Your task to perform on an android device: Open Google Image 0: 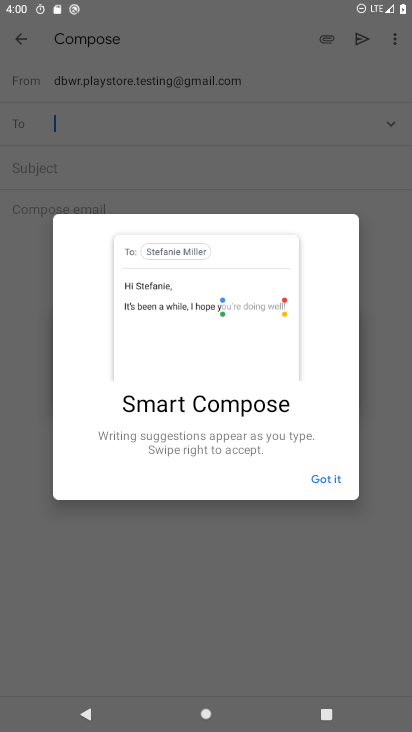
Step 0: press home button
Your task to perform on an android device: Open Google Image 1: 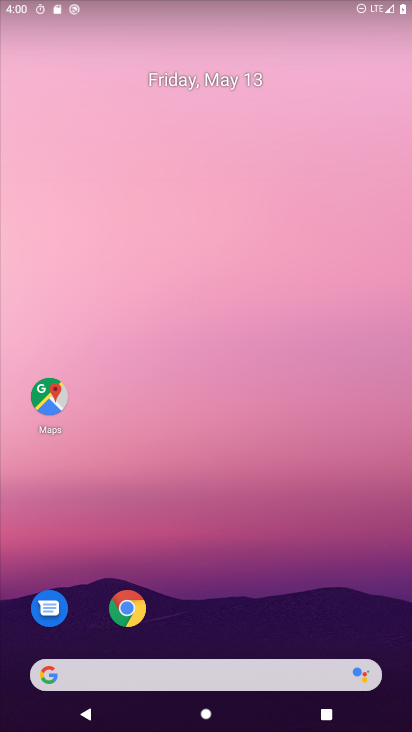
Step 1: drag from (316, 569) to (319, 254)
Your task to perform on an android device: Open Google Image 2: 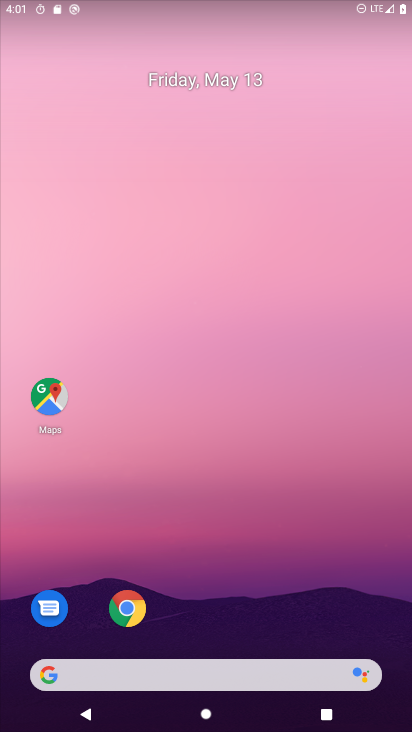
Step 2: drag from (265, 567) to (255, 91)
Your task to perform on an android device: Open Google Image 3: 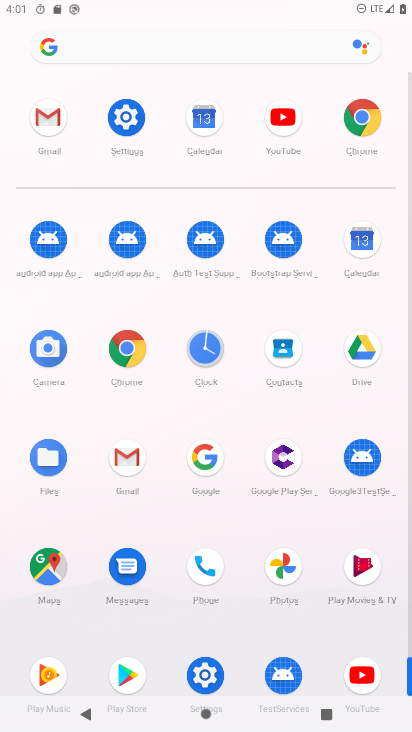
Step 3: click (208, 443)
Your task to perform on an android device: Open Google Image 4: 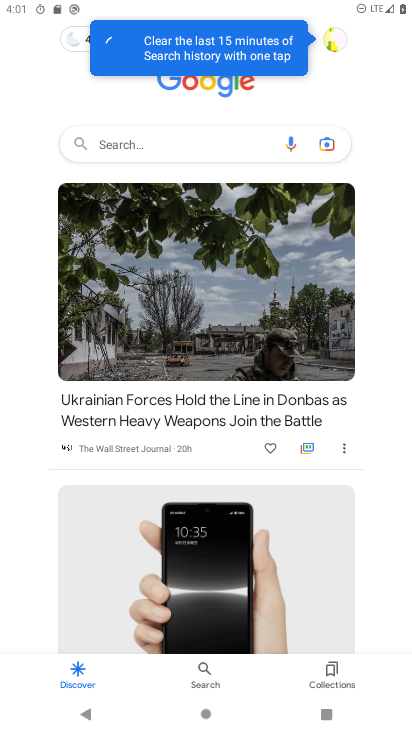
Step 4: task complete